Your task to perform on an android device: Open Google Chrome Image 0: 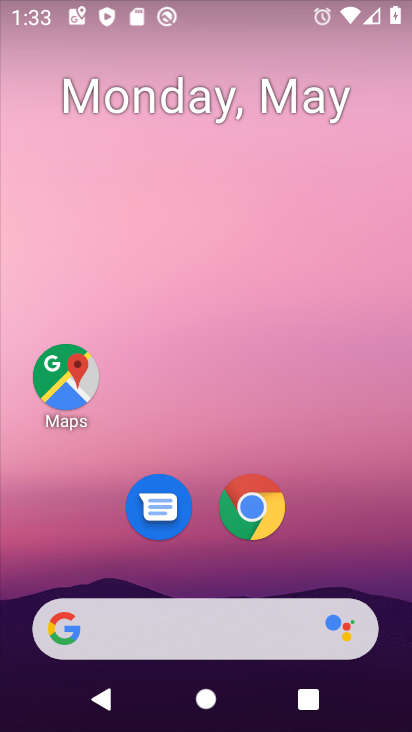
Step 0: click (253, 503)
Your task to perform on an android device: Open Google Chrome Image 1: 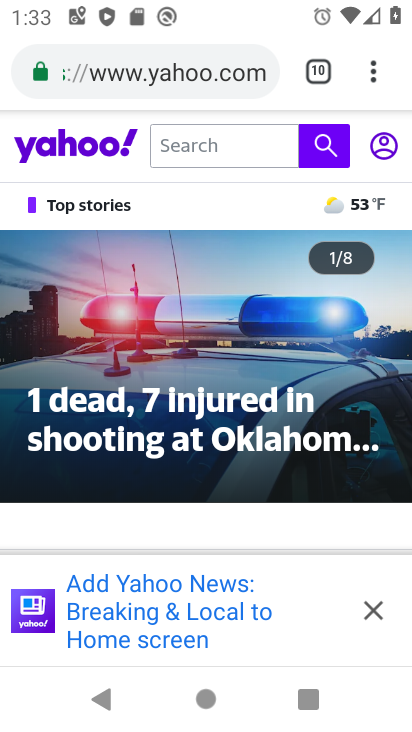
Step 1: task complete